Your task to perform on an android device: Open network settings Image 0: 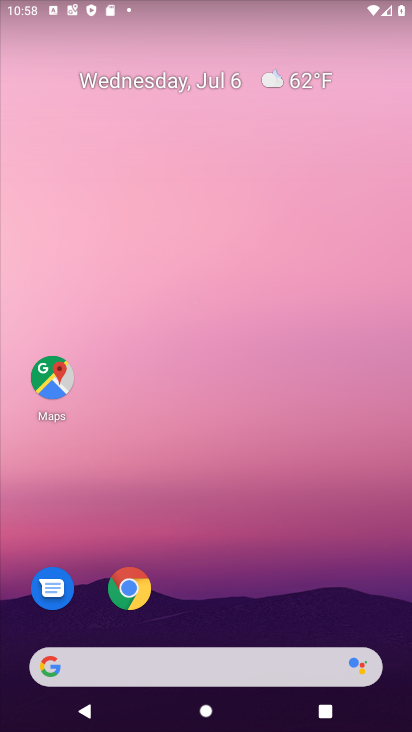
Step 0: drag from (382, 634) to (315, 95)
Your task to perform on an android device: Open network settings Image 1: 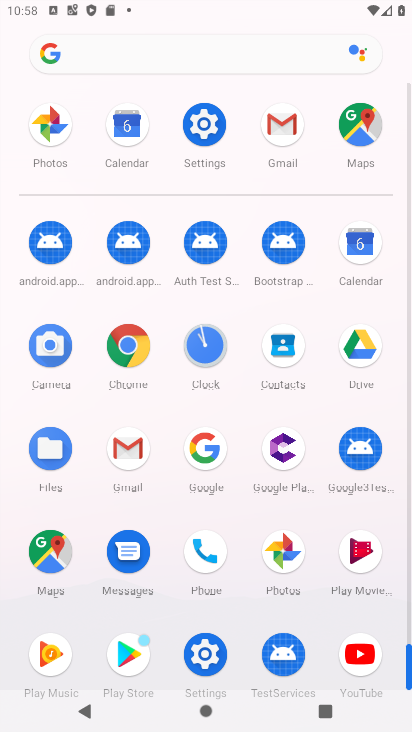
Step 1: click (206, 655)
Your task to perform on an android device: Open network settings Image 2: 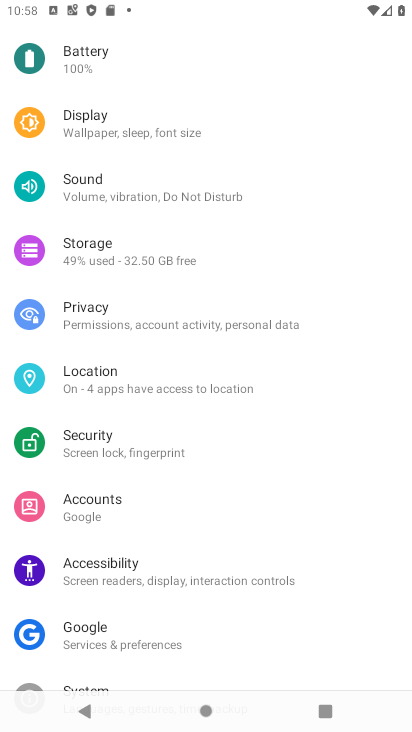
Step 2: drag from (294, 110) to (349, 403)
Your task to perform on an android device: Open network settings Image 3: 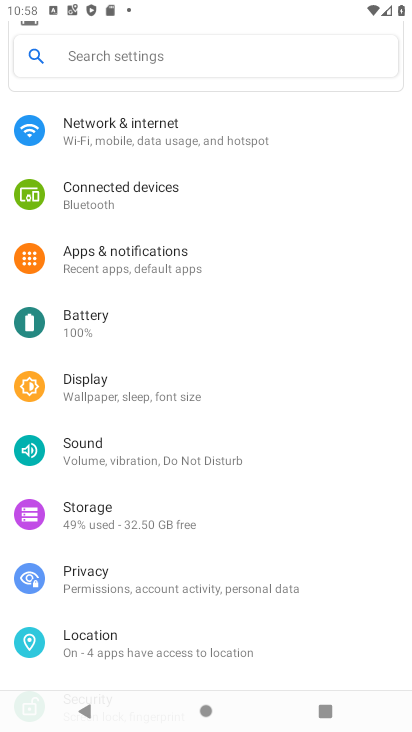
Step 3: click (107, 121)
Your task to perform on an android device: Open network settings Image 4: 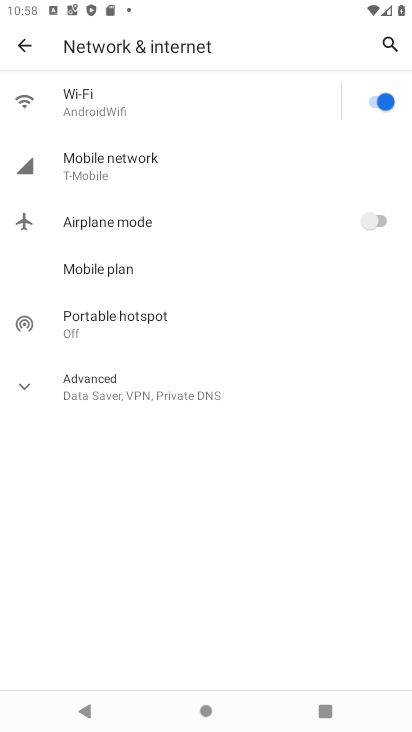
Step 4: click (32, 395)
Your task to perform on an android device: Open network settings Image 5: 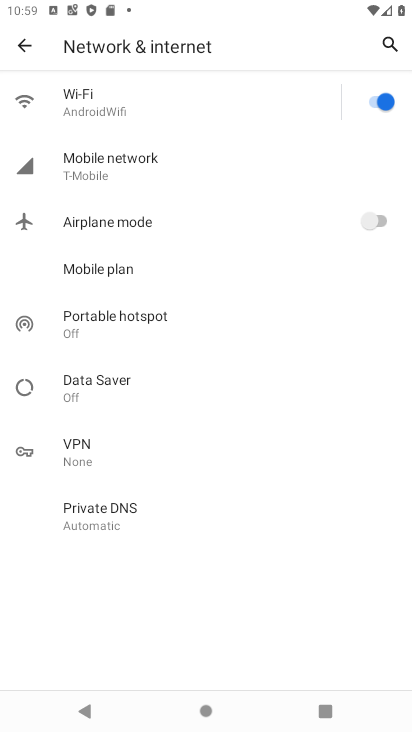
Step 5: click (102, 153)
Your task to perform on an android device: Open network settings Image 6: 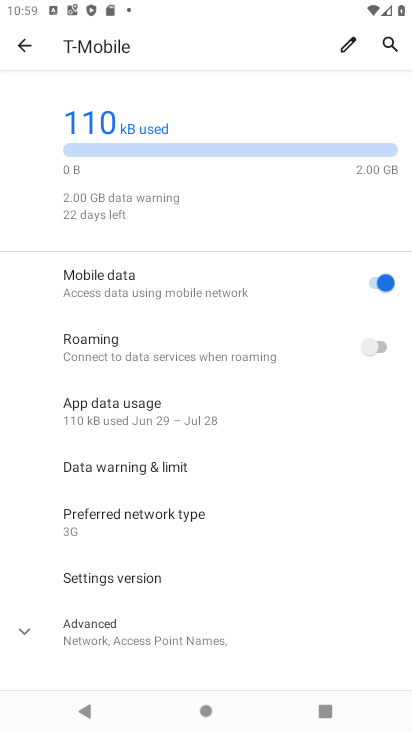
Step 6: drag from (308, 637) to (290, 520)
Your task to perform on an android device: Open network settings Image 7: 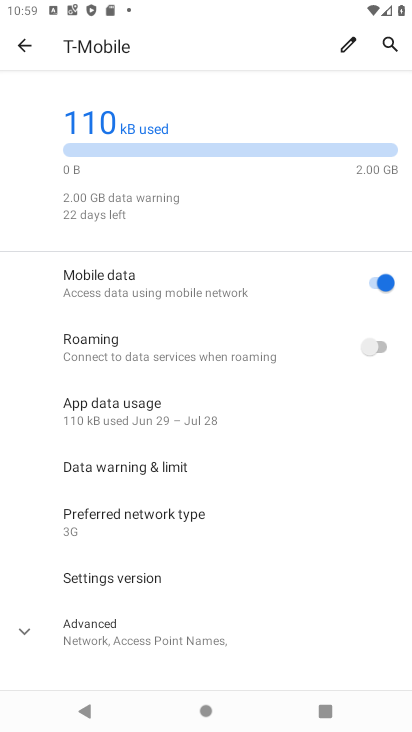
Step 7: click (26, 628)
Your task to perform on an android device: Open network settings Image 8: 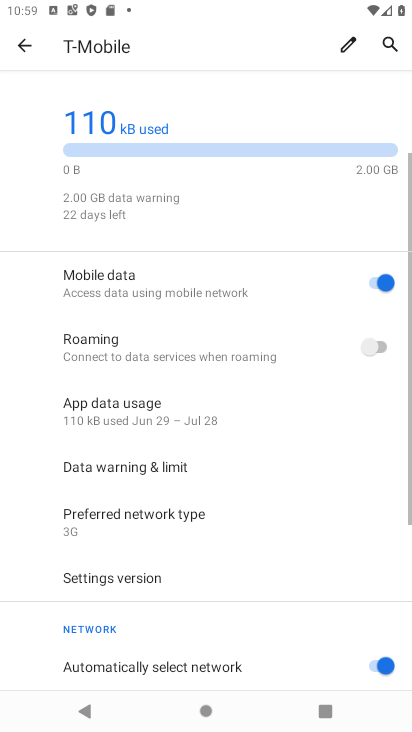
Step 8: task complete